Your task to perform on an android device: turn off location history Image 0: 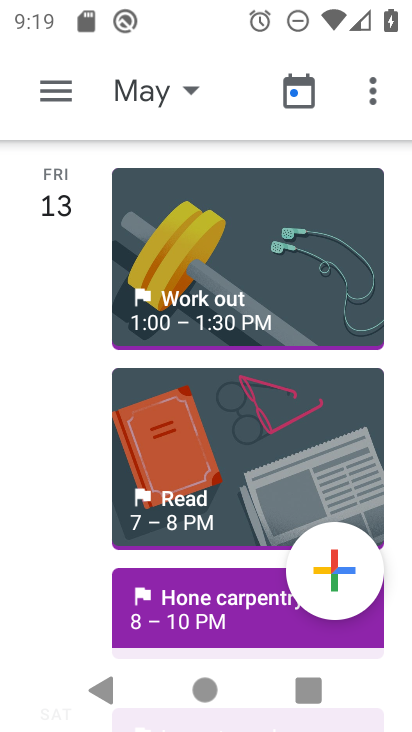
Step 0: press home button
Your task to perform on an android device: turn off location history Image 1: 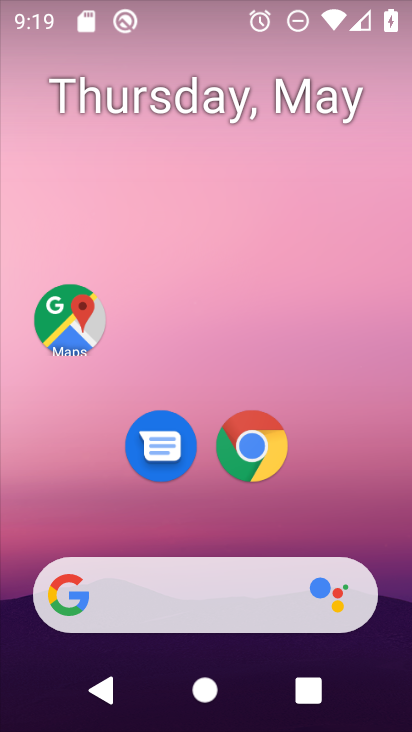
Step 1: drag from (373, 482) to (360, 111)
Your task to perform on an android device: turn off location history Image 2: 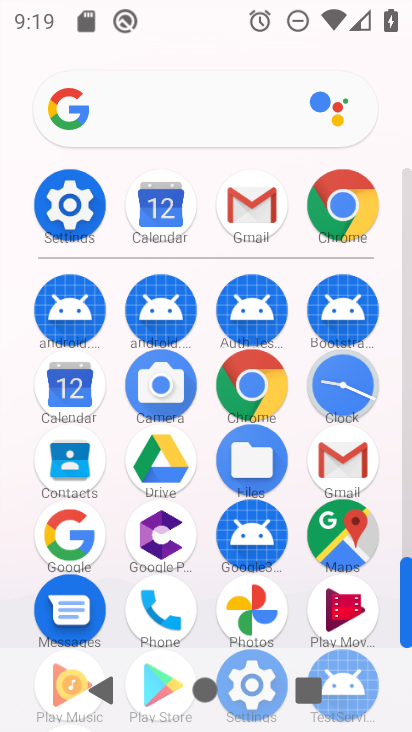
Step 2: click (47, 219)
Your task to perform on an android device: turn off location history Image 3: 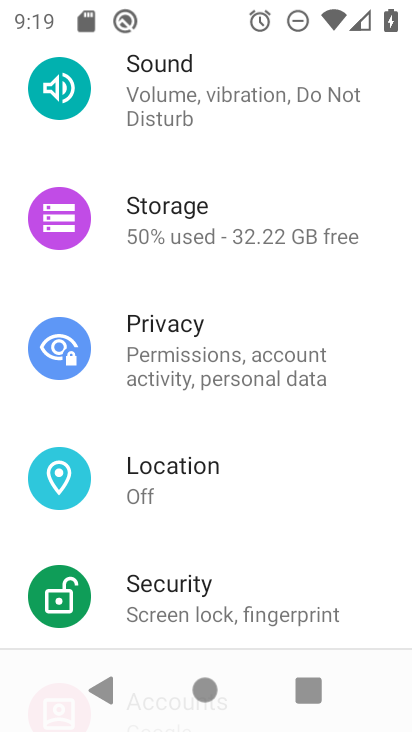
Step 3: click (190, 486)
Your task to perform on an android device: turn off location history Image 4: 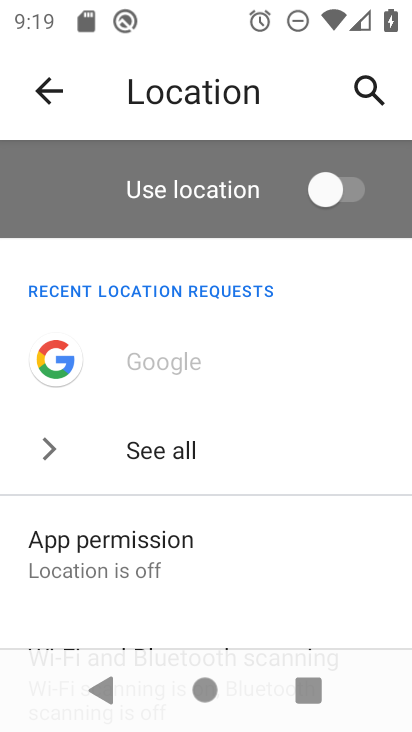
Step 4: drag from (254, 577) to (291, 254)
Your task to perform on an android device: turn off location history Image 5: 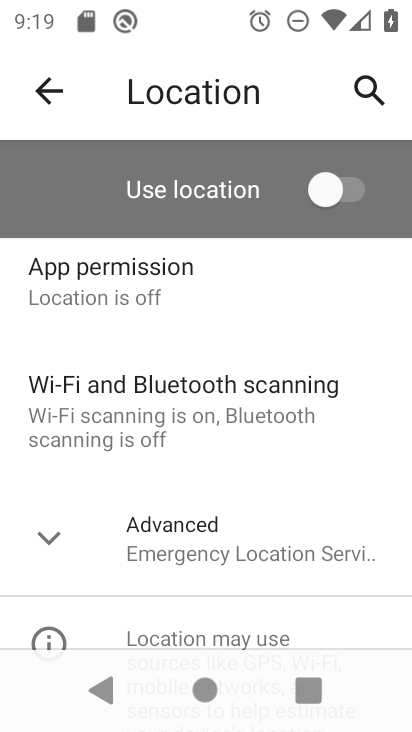
Step 5: click (280, 560)
Your task to perform on an android device: turn off location history Image 6: 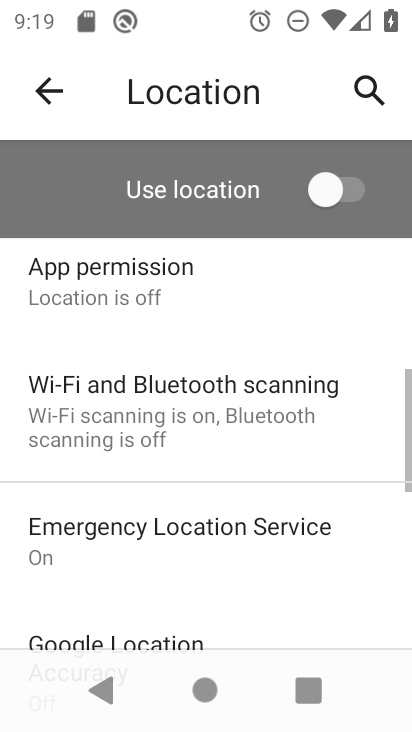
Step 6: drag from (263, 593) to (205, 330)
Your task to perform on an android device: turn off location history Image 7: 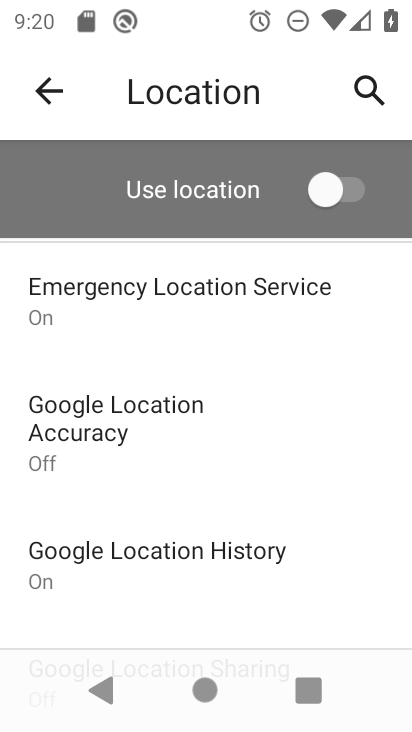
Step 7: drag from (284, 571) to (260, 346)
Your task to perform on an android device: turn off location history Image 8: 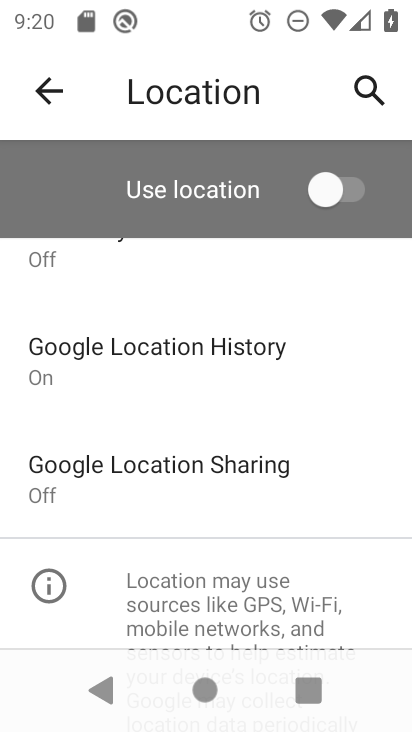
Step 8: click (155, 344)
Your task to perform on an android device: turn off location history Image 9: 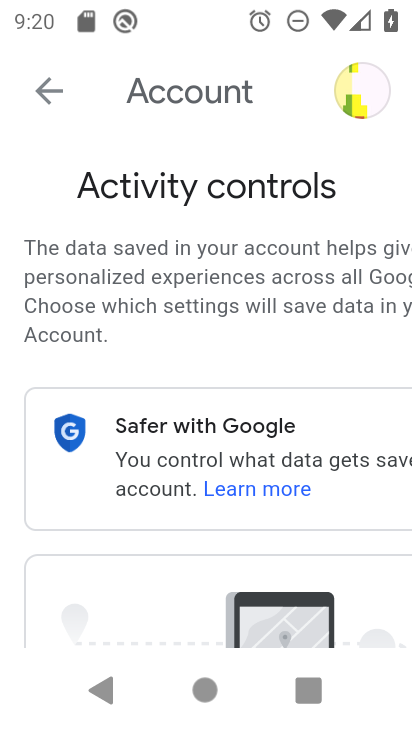
Step 9: task complete